Your task to perform on an android device: check battery use Image 0: 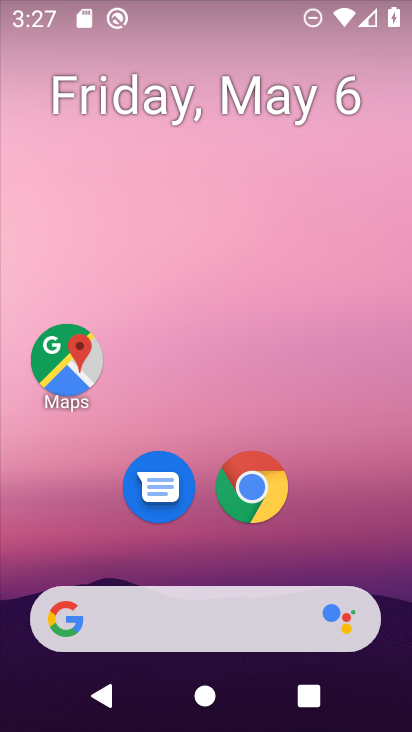
Step 0: drag from (314, 563) to (343, 29)
Your task to perform on an android device: check battery use Image 1: 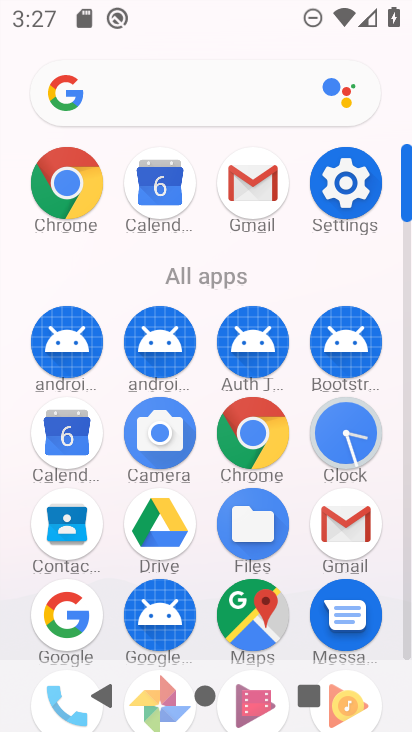
Step 1: click (342, 175)
Your task to perform on an android device: check battery use Image 2: 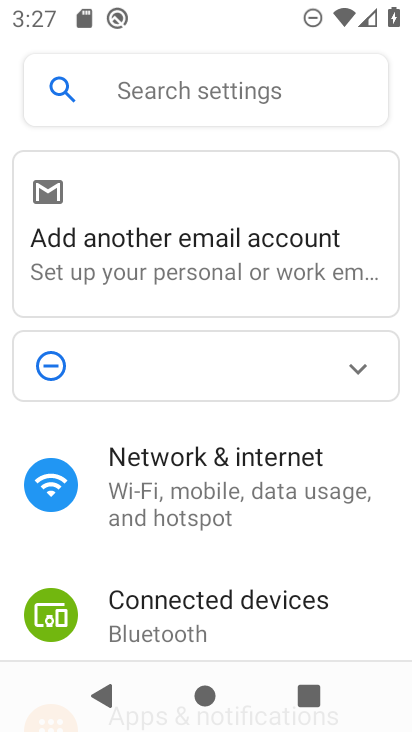
Step 2: drag from (251, 614) to (247, 235)
Your task to perform on an android device: check battery use Image 3: 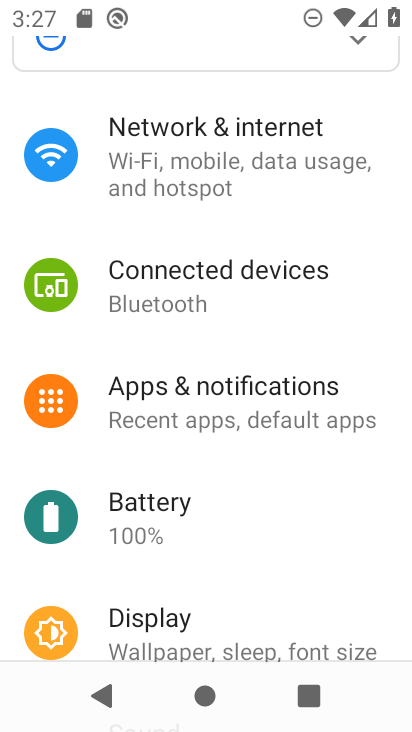
Step 3: drag from (200, 609) to (318, 292)
Your task to perform on an android device: check battery use Image 4: 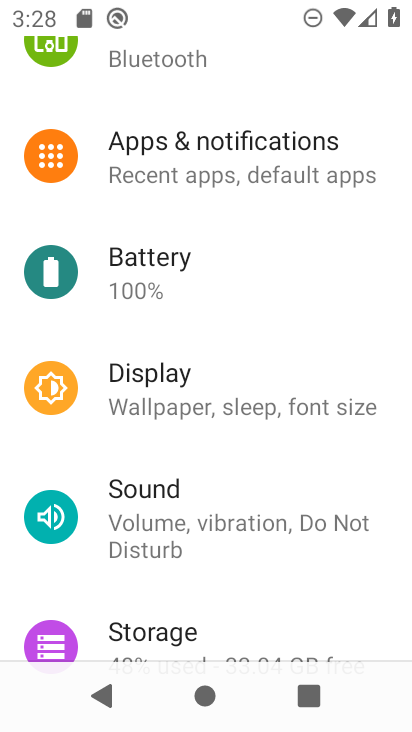
Step 4: drag from (205, 600) to (280, 363)
Your task to perform on an android device: check battery use Image 5: 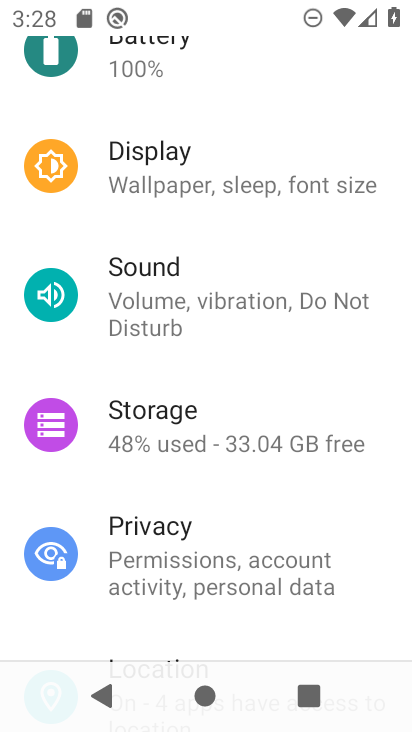
Step 5: click (245, 76)
Your task to perform on an android device: check battery use Image 6: 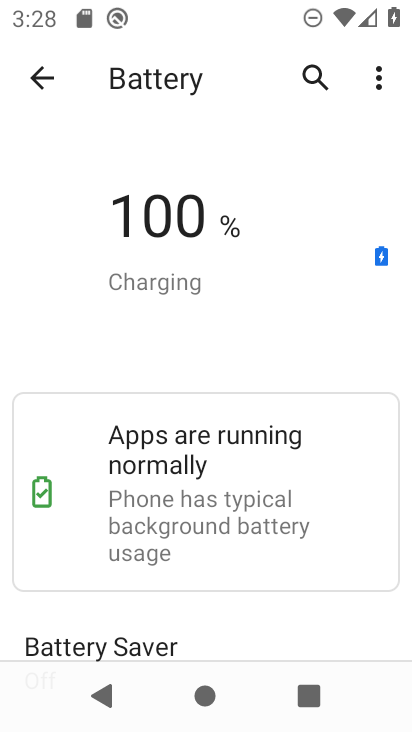
Step 6: click (376, 86)
Your task to perform on an android device: check battery use Image 7: 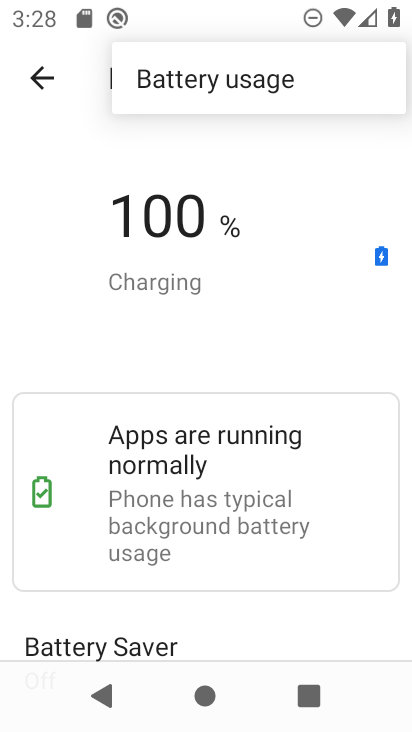
Step 7: click (295, 89)
Your task to perform on an android device: check battery use Image 8: 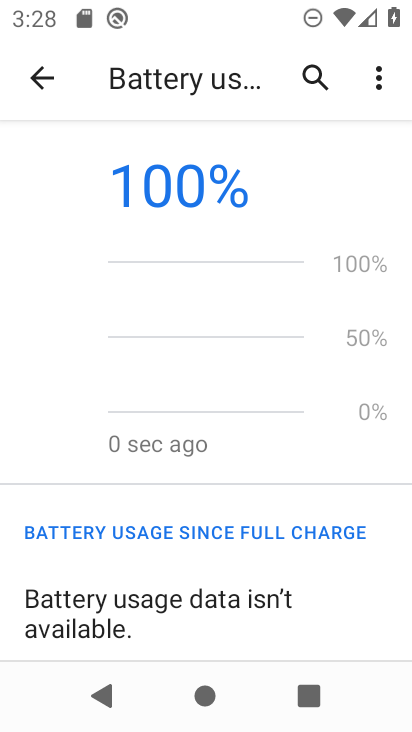
Step 8: task complete